Your task to perform on an android device: Play the last video I watched on Youtube Image 0: 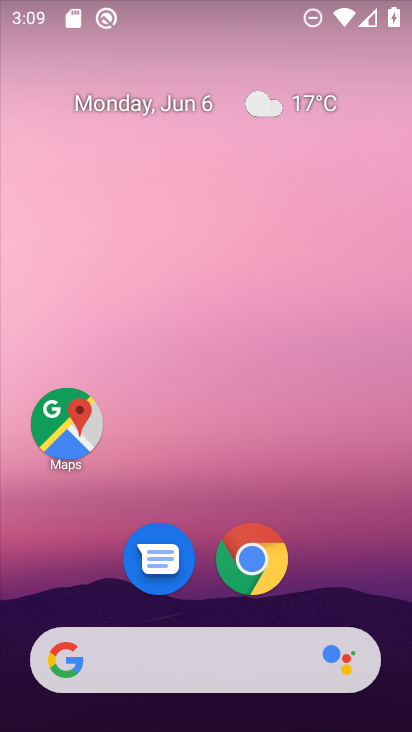
Step 0: drag from (387, 607) to (301, 189)
Your task to perform on an android device: Play the last video I watched on Youtube Image 1: 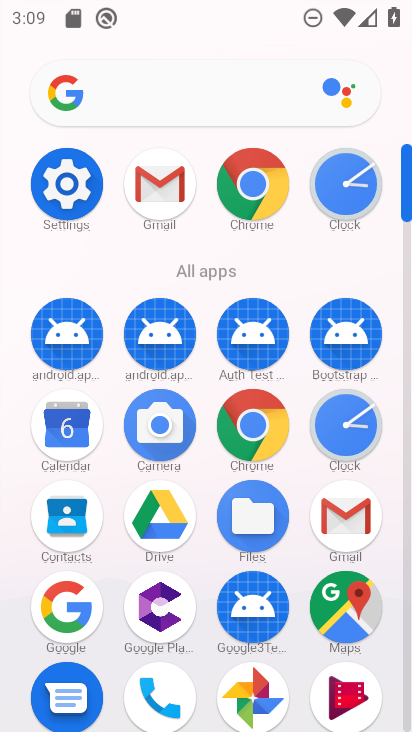
Step 1: click (407, 703)
Your task to perform on an android device: Play the last video I watched on Youtube Image 2: 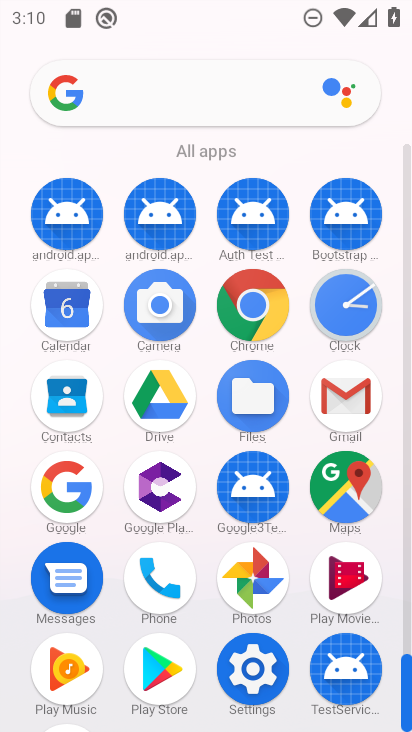
Step 2: drag from (395, 631) to (409, 461)
Your task to perform on an android device: Play the last video I watched on Youtube Image 3: 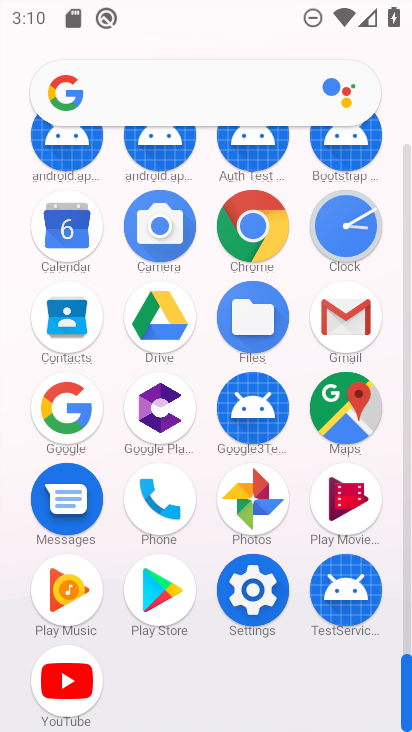
Step 3: click (84, 674)
Your task to perform on an android device: Play the last video I watched on Youtube Image 4: 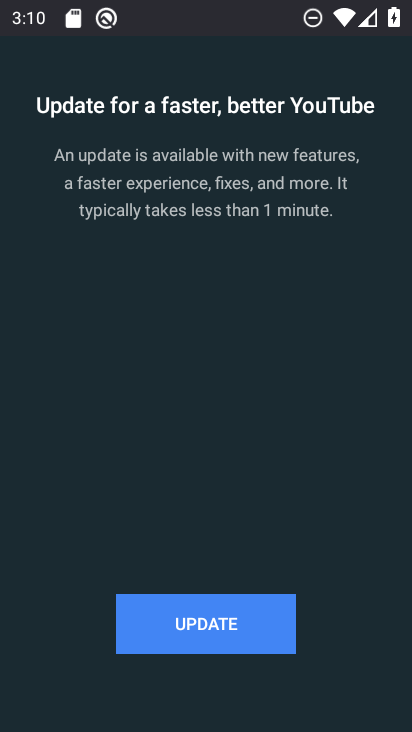
Step 4: click (199, 631)
Your task to perform on an android device: Play the last video I watched on Youtube Image 5: 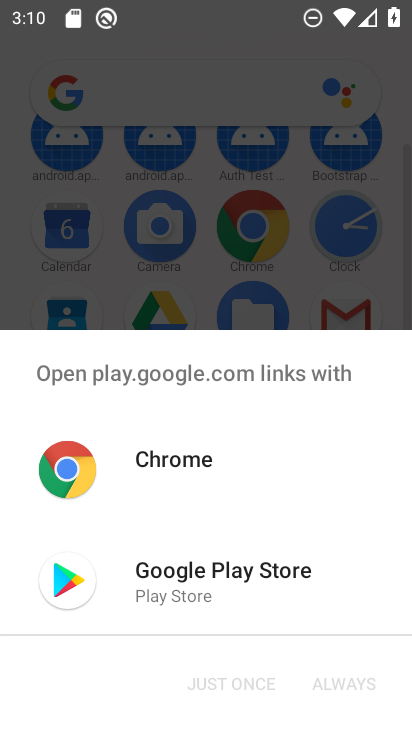
Step 5: click (235, 587)
Your task to perform on an android device: Play the last video I watched on Youtube Image 6: 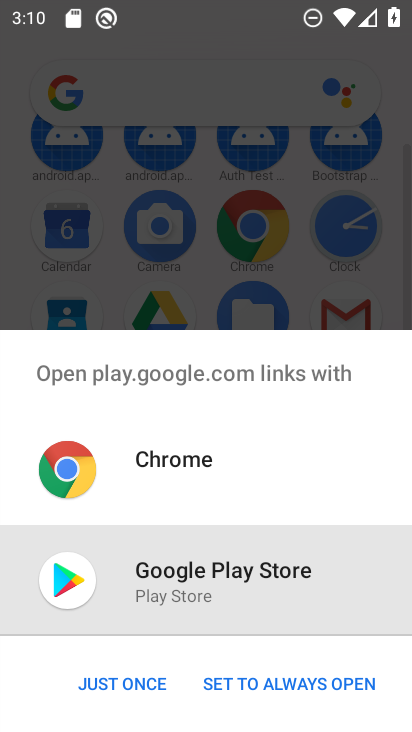
Step 6: click (131, 681)
Your task to perform on an android device: Play the last video I watched on Youtube Image 7: 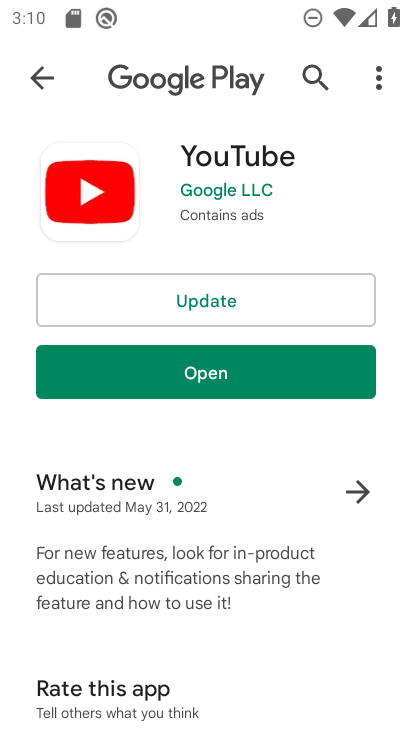
Step 7: click (229, 308)
Your task to perform on an android device: Play the last video I watched on Youtube Image 8: 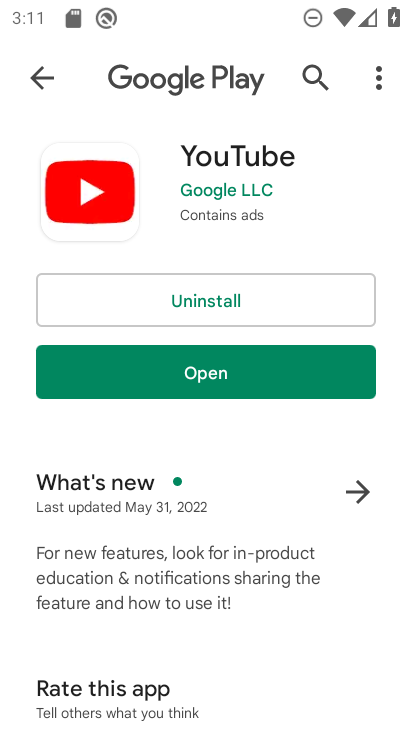
Step 8: click (307, 372)
Your task to perform on an android device: Play the last video I watched on Youtube Image 9: 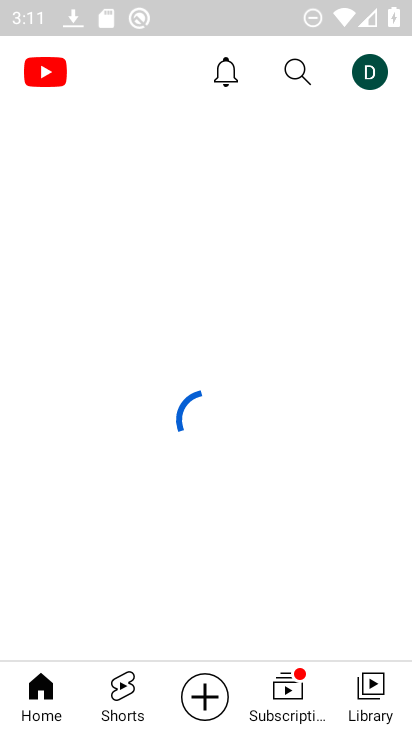
Step 9: click (366, 691)
Your task to perform on an android device: Play the last video I watched on Youtube Image 10: 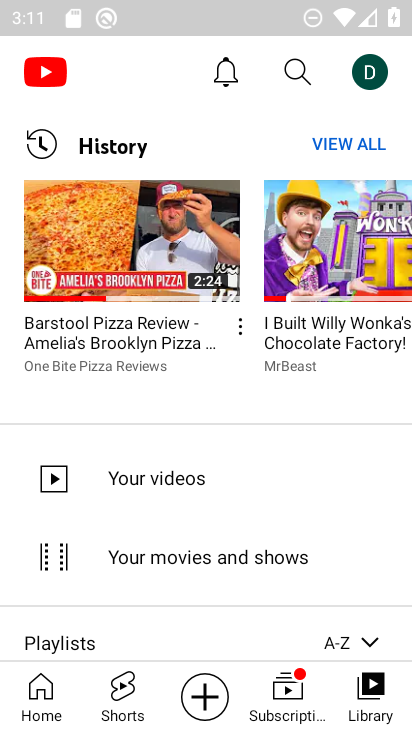
Step 10: click (175, 253)
Your task to perform on an android device: Play the last video I watched on Youtube Image 11: 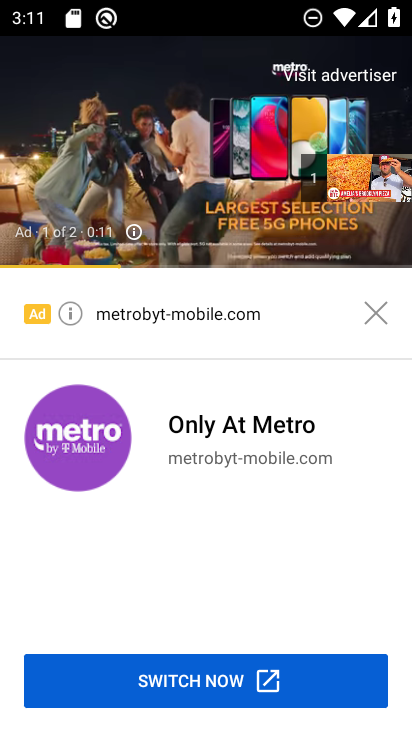
Step 11: task complete